Your task to perform on an android device: Open calendar and show me the second week of next month Image 0: 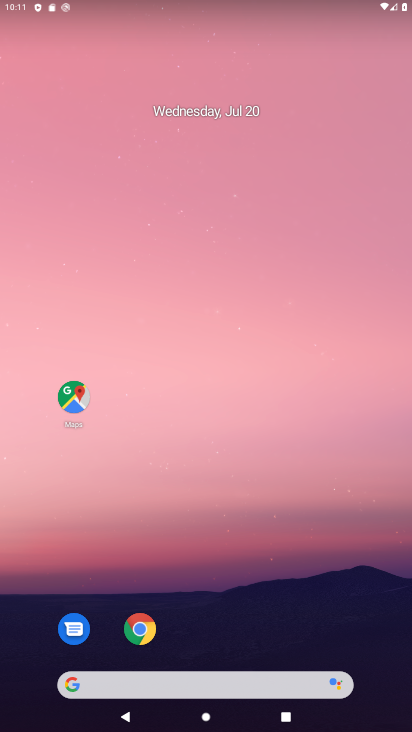
Step 0: drag from (259, 513) to (209, 0)
Your task to perform on an android device: Open calendar and show me the second week of next month Image 1: 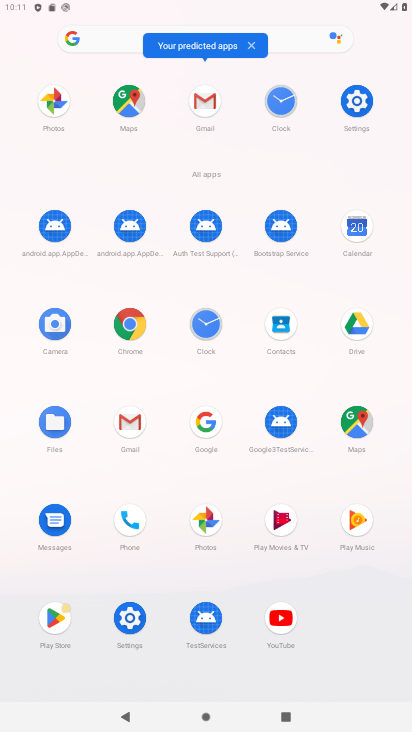
Step 1: click (351, 231)
Your task to perform on an android device: Open calendar and show me the second week of next month Image 2: 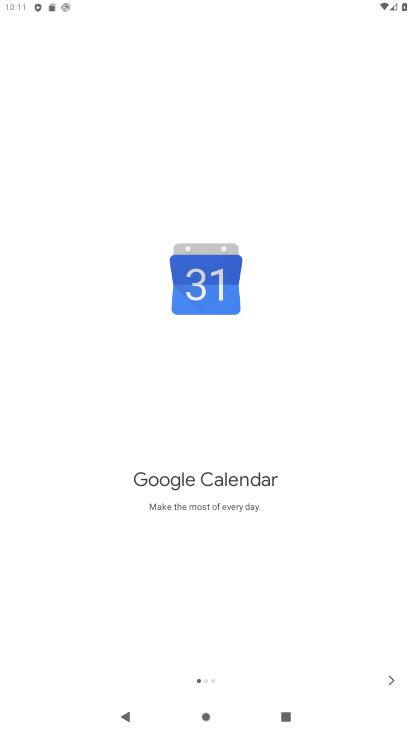
Step 2: click (399, 684)
Your task to perform on an android device: Open calendar and show me the second week of next month Image 3: 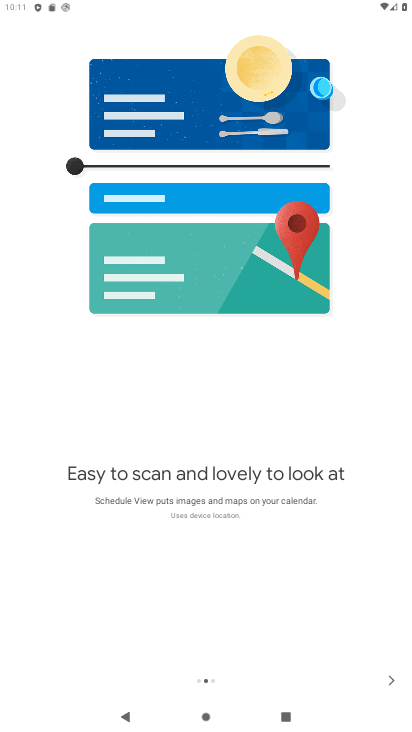
Step 3: click (396, 683)
Your task to perform on an android device: Open calendar and show me the second week of next month Image 4: 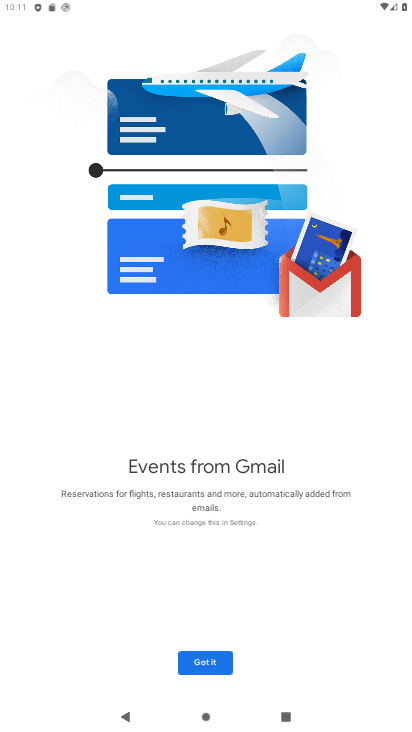
Step 4: click (204, 664)
Your task to perform on an android device: Open calendar and show me the second week of next month Image 5: 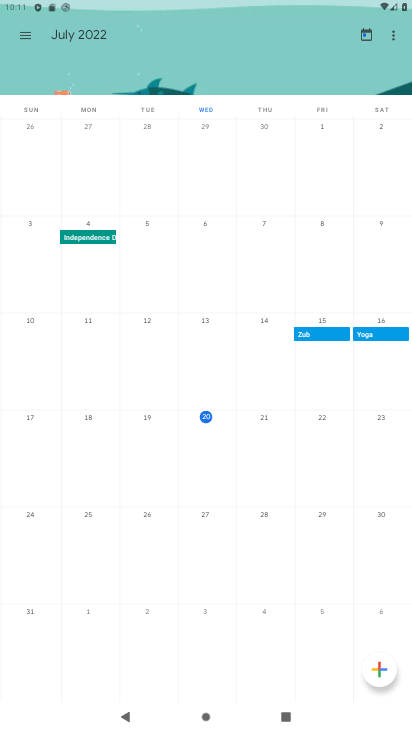
Step 5: drag from (362, 528) to (9, 549)
Your task to perform on an android device: Open calendar and show me the second week of next month Image 6: 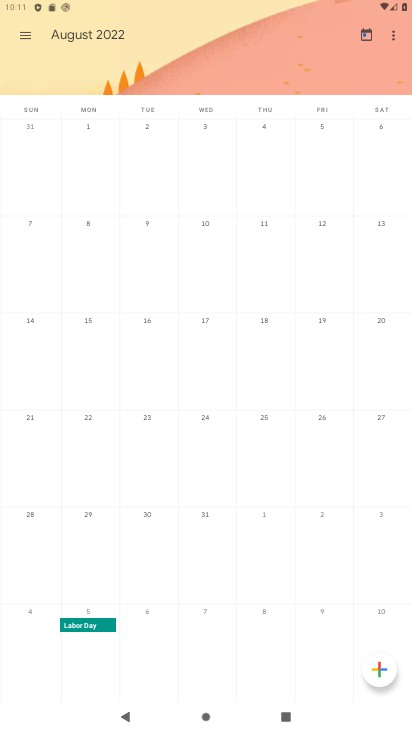
Step 6: click (36, 326)
Your task to perform on an android device: Open calendar and show me the second week of next month Image 7: 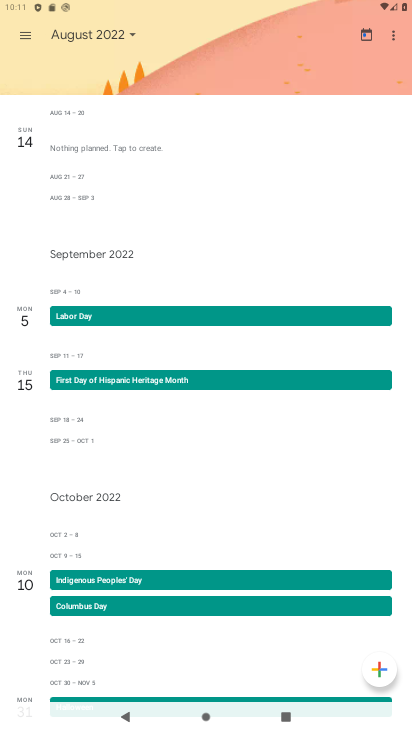
Step 7: task complete